Your task to perform on an android device: turn on the 12-hour format for clock Image 0: 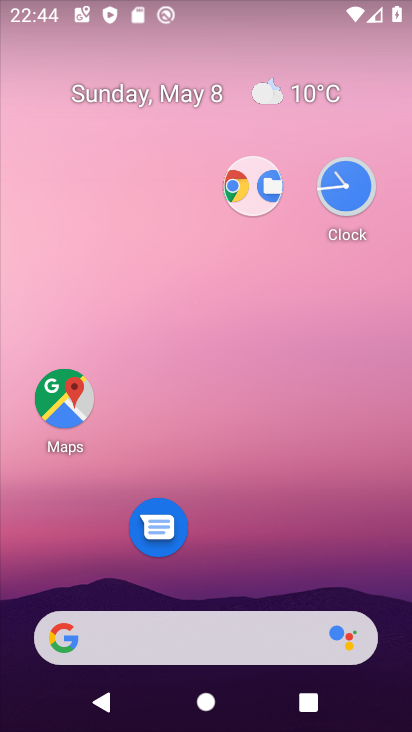
Step 0: drag from (282, 537) to (276, 227)
Your task to perform on an android device: turn on the 12-hour format for clock Image 1: 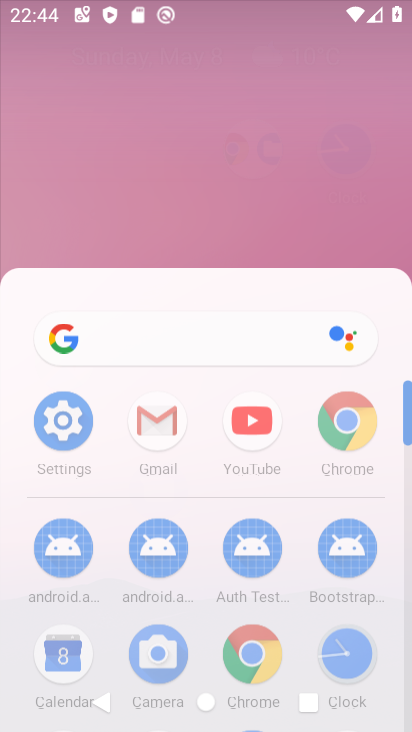
Step 1: click (301, 128)
Your task to perform on an android device: turn on the 12-hour format for clock Image 2: 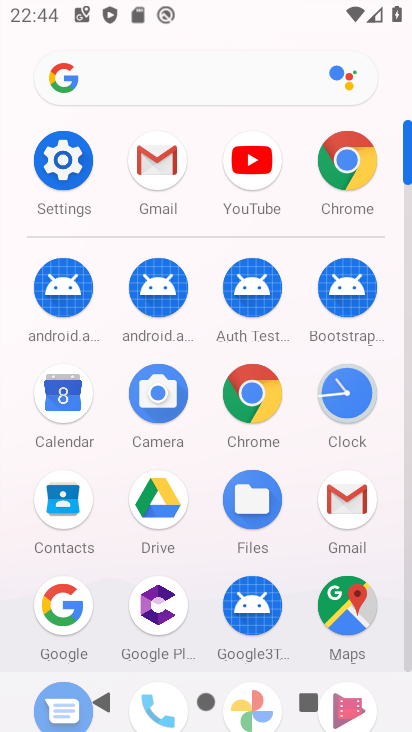
Step 2: click (344, 401)
Your task to perform on an android device: turn on the 12-hour format for clock Image 3: 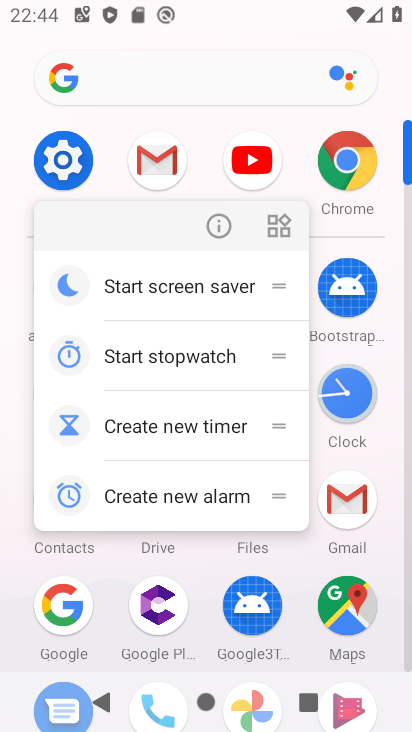
Step 3: click (344, 400)
Your task to perform on an android device: turn on the 12-hour format for clock Image 4: 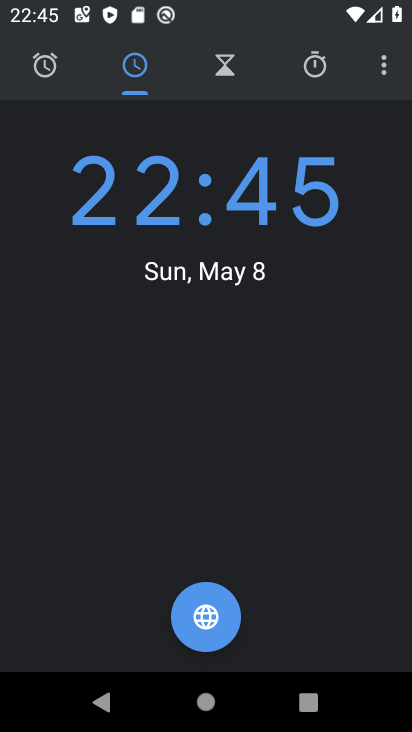
Step 4: click (386, 65)
Your task to perform on an android device: turn on the 12-hour format for clock Image 5: 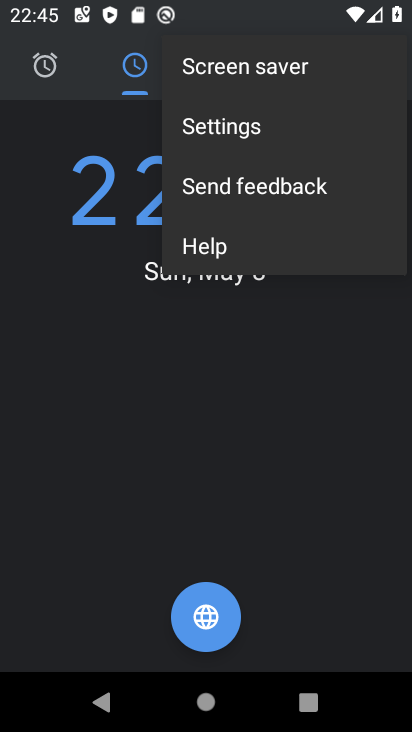
Step 5: click (264, 127)
Your task to perform on an android device: turn on the 12-hour format for clock Image 6: 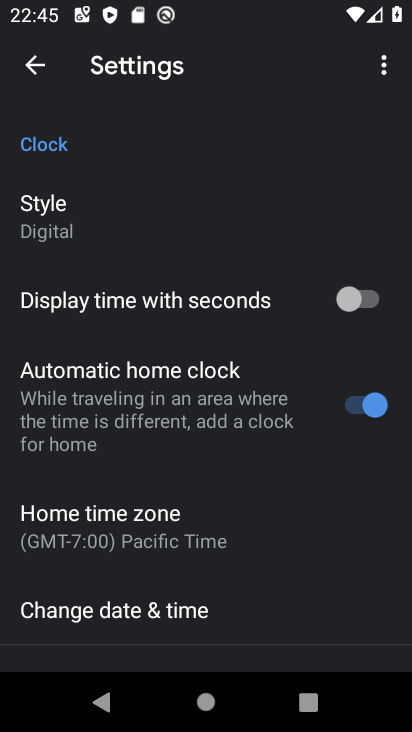
Step 6: click (181, 606)
Your task to perform on an android device: turn on the 12-hour format for clock Image 7: 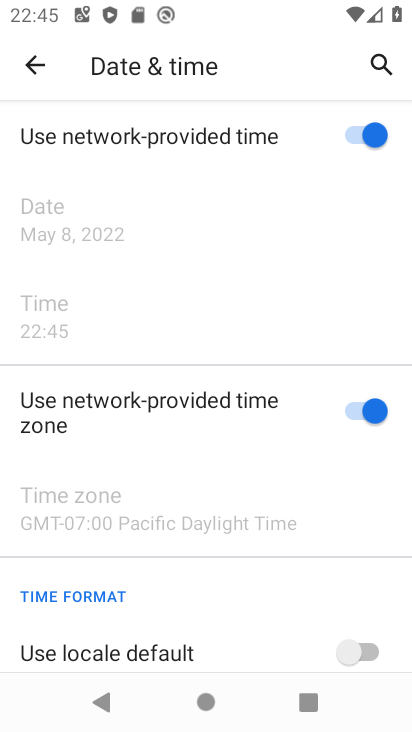
Step 7: drag from (318, 548) to (271, 351)
Your task to perform on an android device: turn on the 12-hour format for clock Image 8: 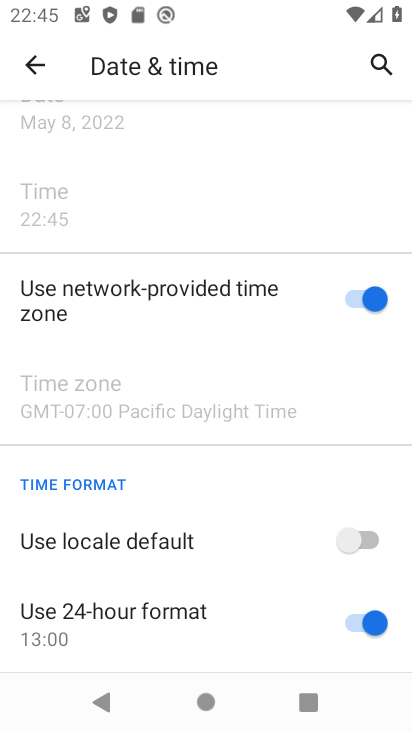
Step 8: click (351, 615)
Your task to perform on an android device: turn on the 12-hour format for clock Image 9: 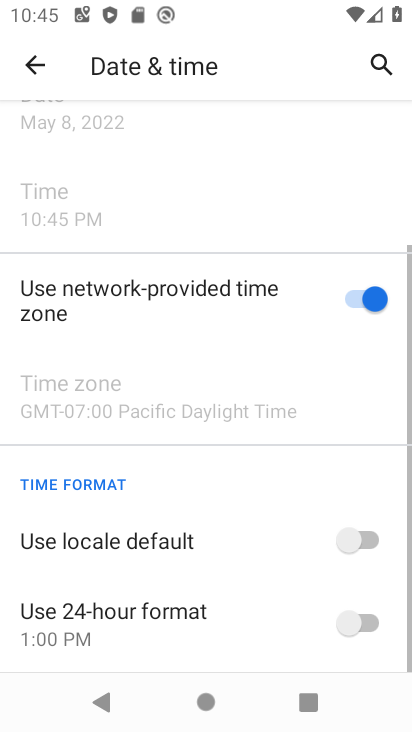
Step 9: click (373, 538)
Your task to perform on an android device: turn on the 12-hour format for clock Image 10: 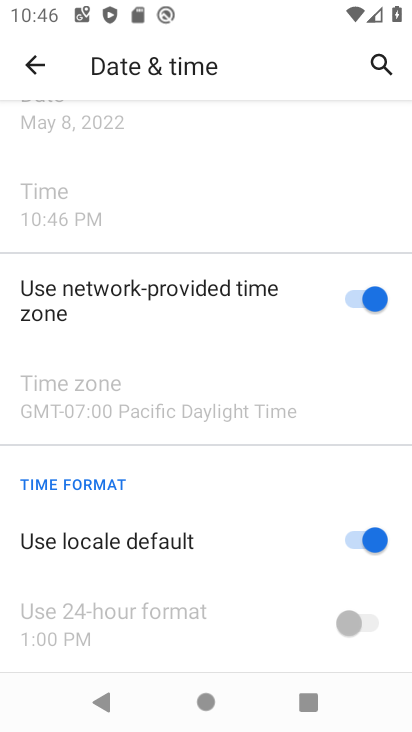
Step 10: task complete